Your task to perform on an android device: Search for seafood restaurants on Google Maps Image 0: 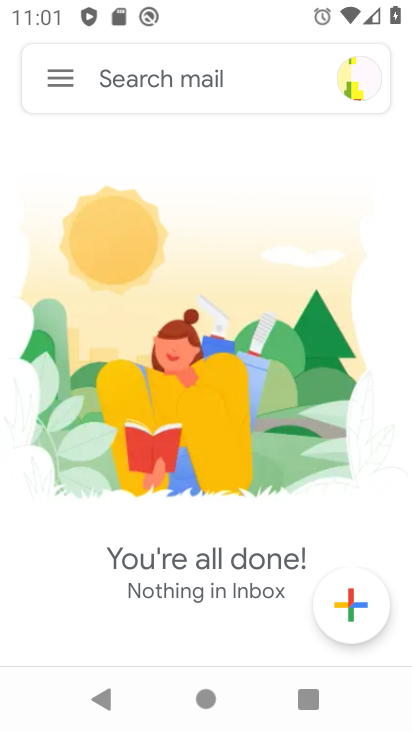
Step 0: press home button
Your task to perform on an android device: Search for seafood restaurants on Google Maps Image 1: 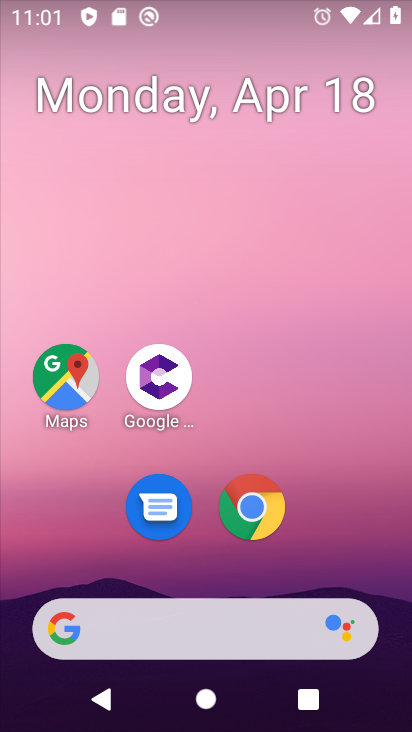
Step 1: drag from (262, 668) to (181, 250)
Your task to perform on an android device: Search for seafood restaurants on Google Maps Image 2: 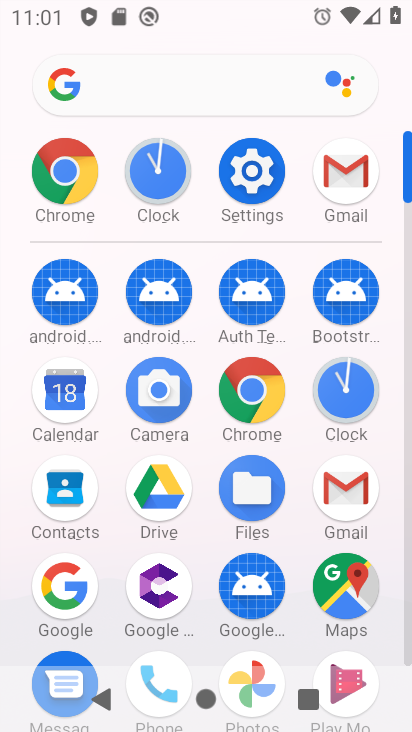
Step 2: click (346, 582)
Your task to perform on an android device: Search for seafood restaurants on Google Maps Image 3: 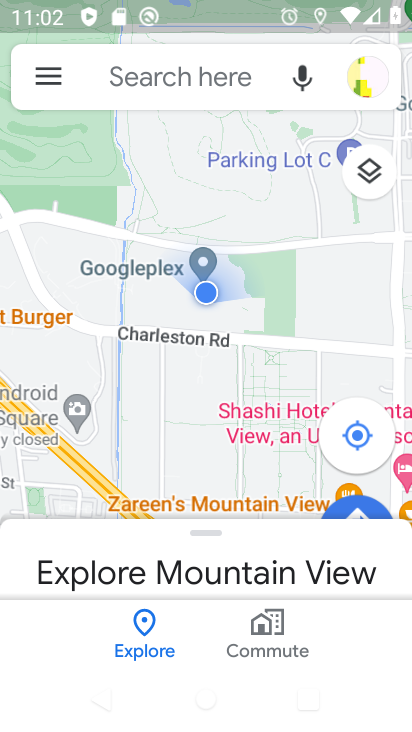
Step 3: click (131, 88)
Your task to perform on an android device: Search for seafood restaurants on Google Maps Image 4: 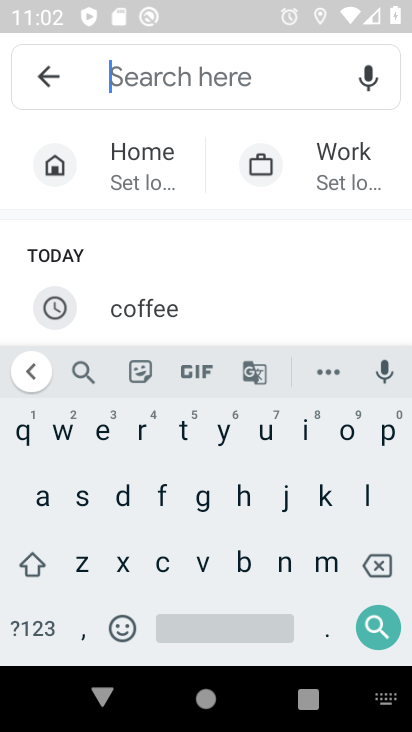
Step 4: click (79, 499)
Your task to perform on an android device: Search for seafood restaurants on Google Maps Image 5: 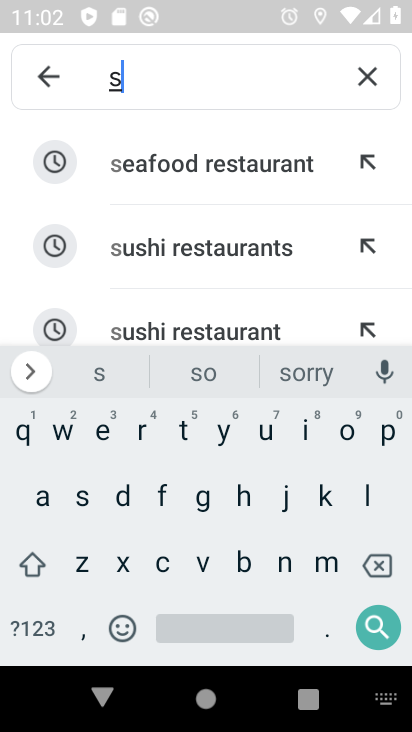
Step 5: click (179, 185)
Your task to perform on an android device: Search for seafood restaurants on Google Maps Image 6: 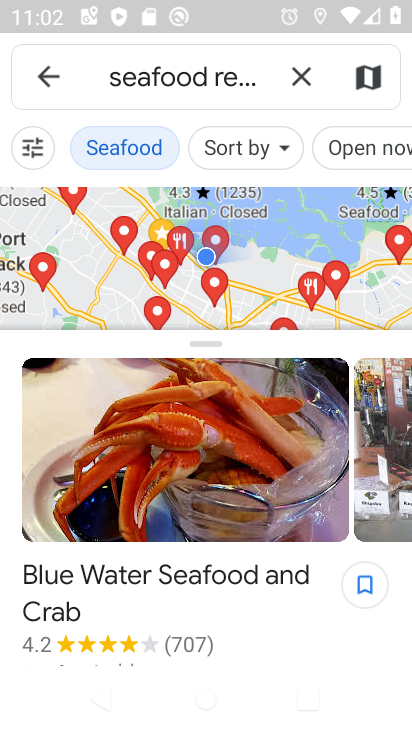
Step 6: click (150, 207)
Your task to perform on an android device: Search for seafood restaurants on Google Maps Image 7: 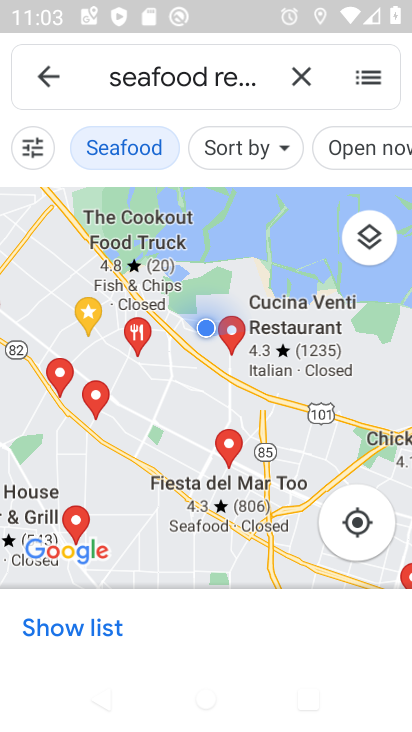
Step 7: task complete